Your task to perform on an android device: Open notification settings Image 0: 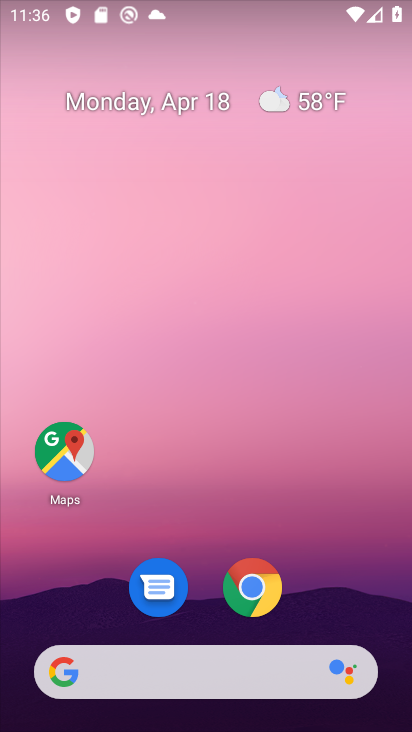
Step 0: drag from (190, 647) to (233, 300)
Your task to perform on an android device: Open notification settings Image 1: 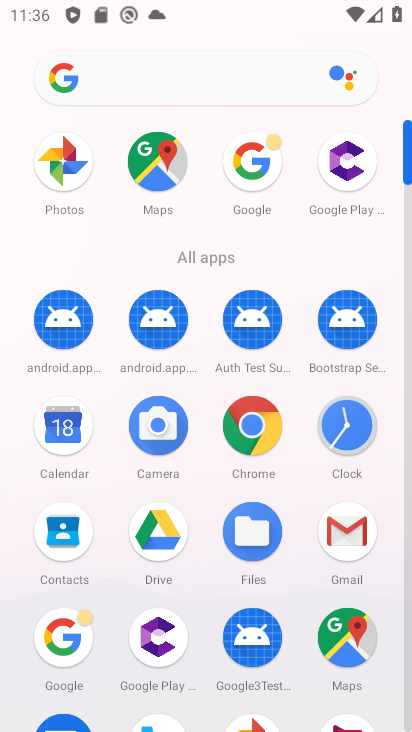
Step 1: drag from (109, 613) to (114, 310)
Your task to perform on an android device: Open notification settings Image 2: 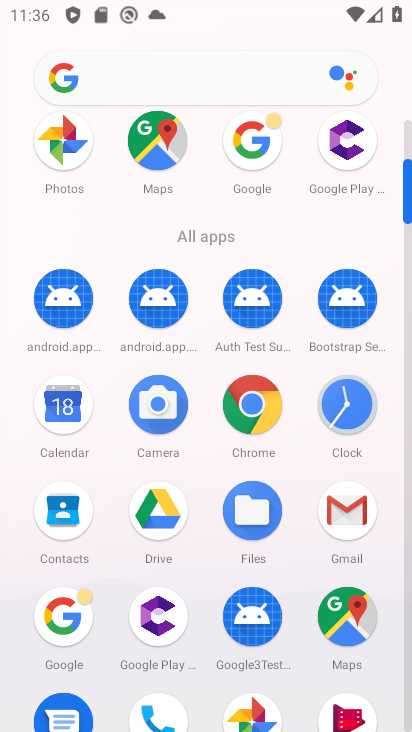
Step 2: drag from (201, 655) to (212, 265)
Your task to perform on an android device: Open notification settings Image 3: 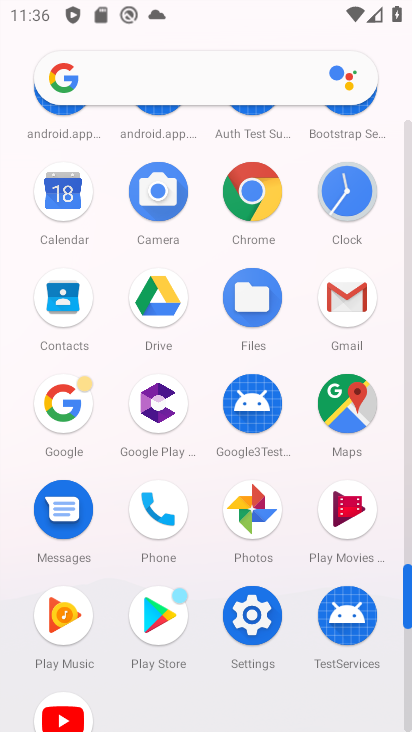
Step 3: click (251, 617)
Your task to perform on an android device: Open notification settings Image 4: 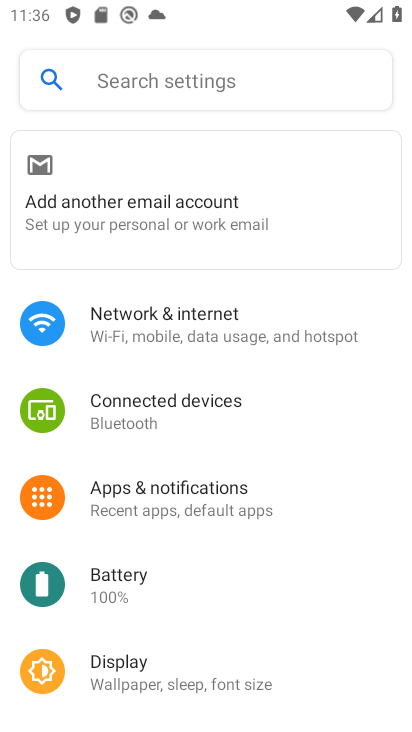
Step 4: click (175, 492)
Your task to perform on an android device: Open notification settings Image 5: 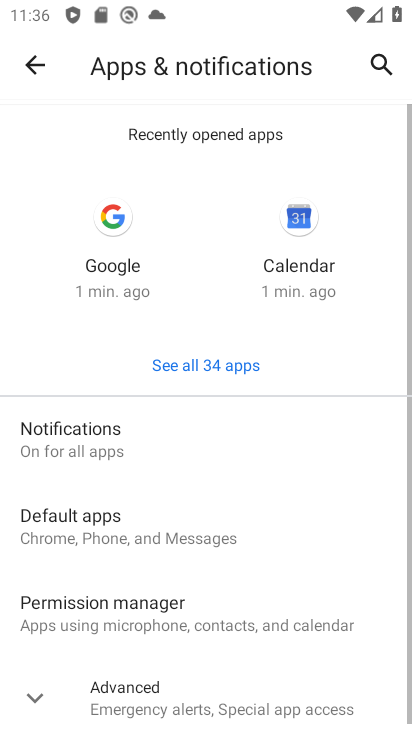
Step 5: drag from (246, 668) to (291, 374)
Your task to perform on an android device: Open notification settings Image 6: 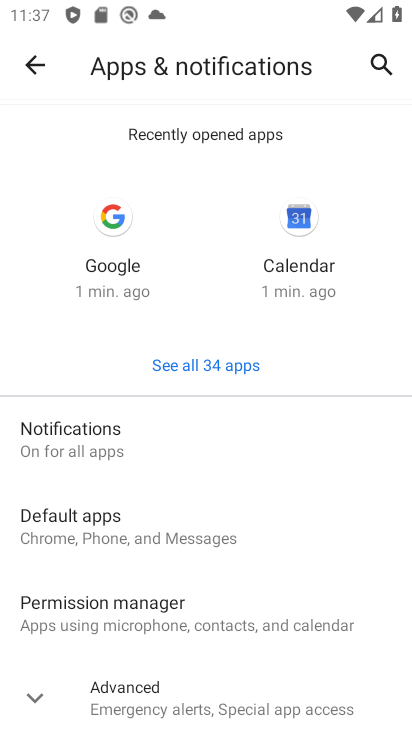
Step 6: click (215, 714)
Your task to perform on an android device: Open notification settings Image 7: 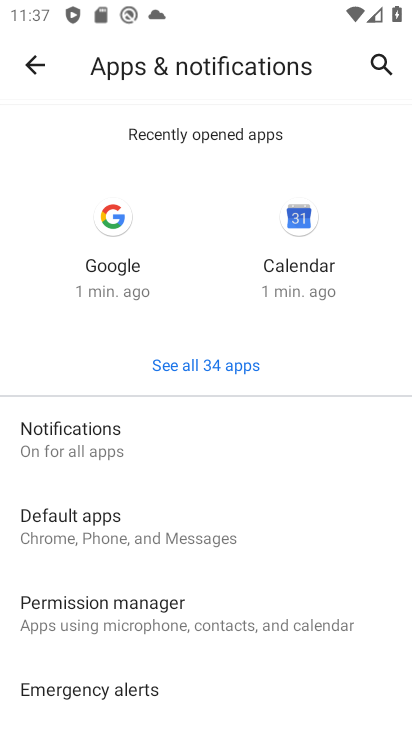
Step 7: task complete